Your task to perform on an android device: Open settings Image 0: 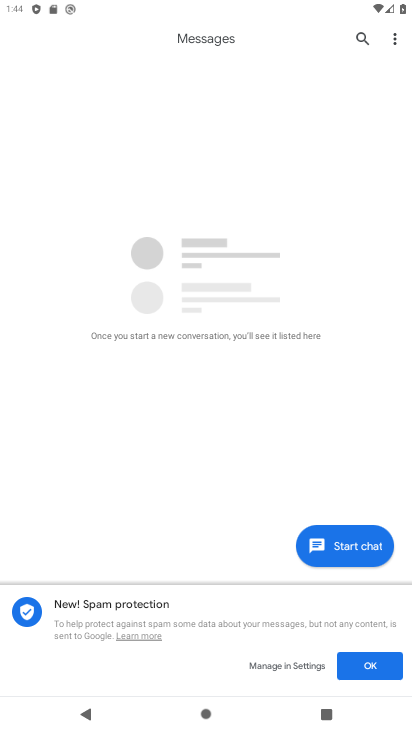
Step 0: press home button
Your task to perform on an android device: Open settings Image 1: 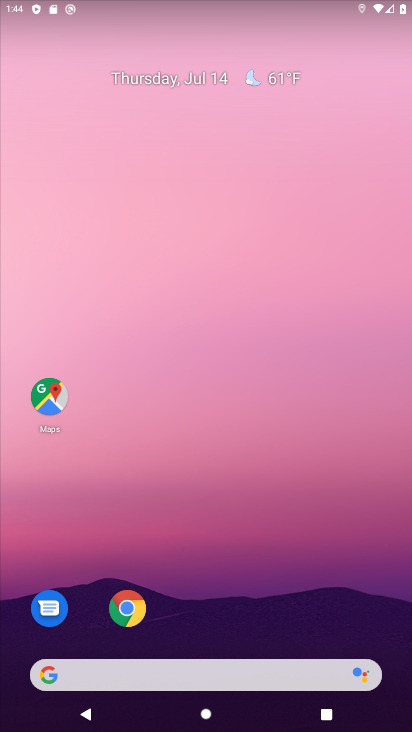
Step 1: drag from (189, 658) to (308, 235)
Your task to perform on an android device: Open settings Image 2: 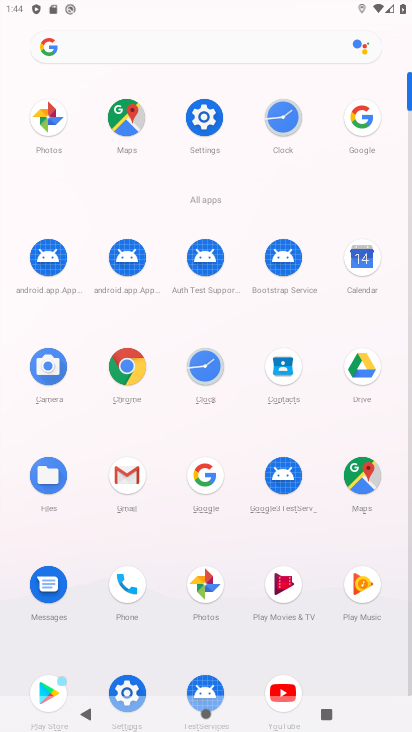
Step 2: click (206, 120)
Your task to perform on an android device: Open settings Image 3: 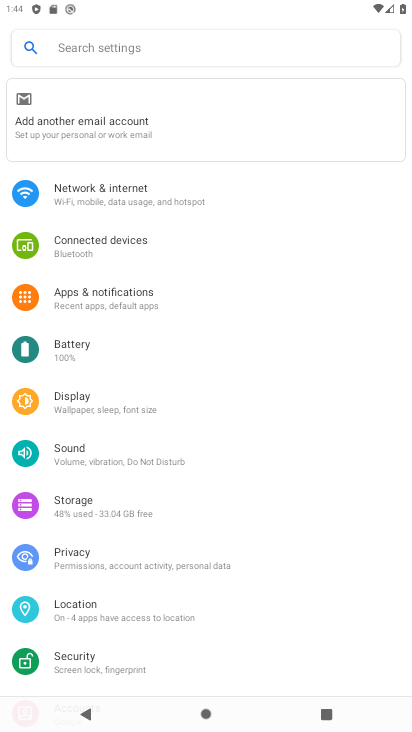
Step 3: task complete